Your task to perform on an android device: Open notification settings Image 0: 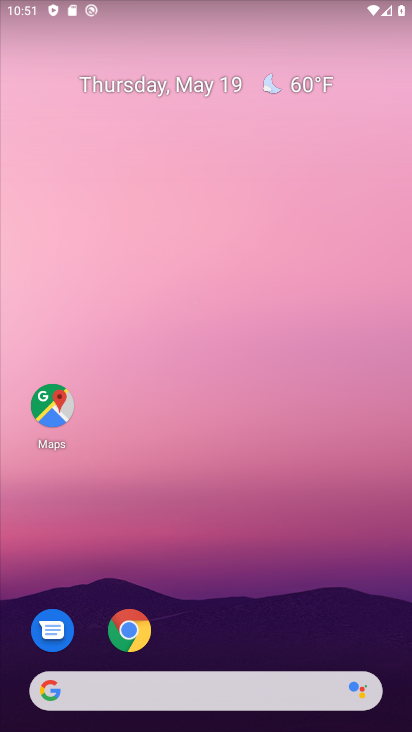
Step 0: drag from (253, 644) to (280, 201)
Your task to perform on an android device: Open notification settings Image 1: 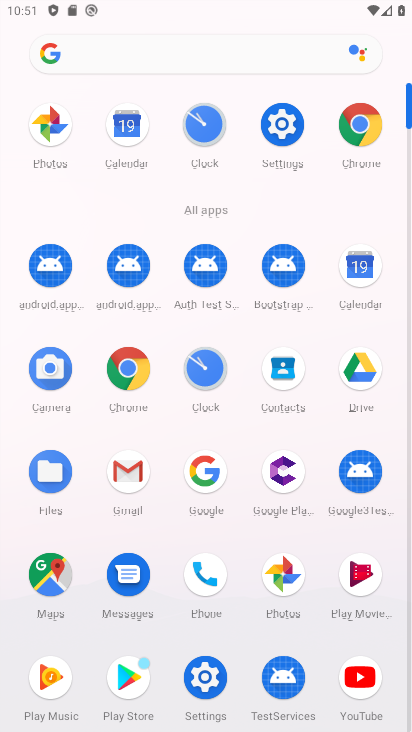
Step 1: click (288, 131)
Your task to perform on an android device: Open notification settings Image 2: 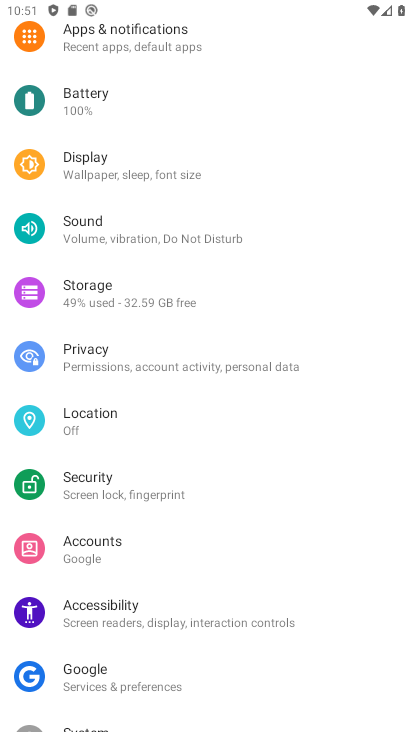
Step 2: click (226, 39)
Your task to perform on an android device: Open notification settings Image 3: 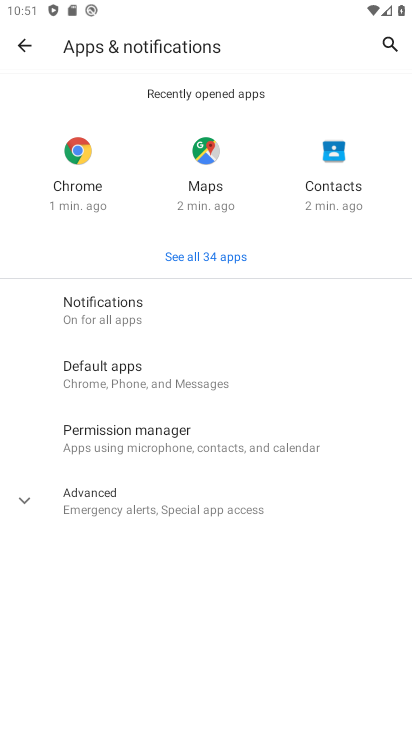
Step 3: click (192, 305)
Your task to perform on an android device: Open notification settings Image 4: 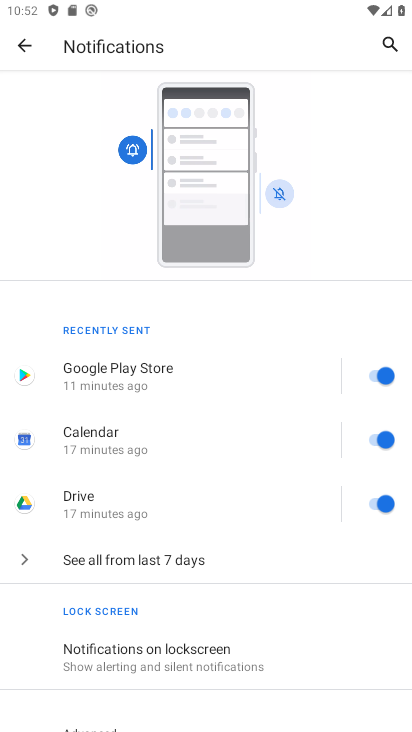
Step 4: task complete